Your task to perform on an android device: Do I have any events today? Image 0: 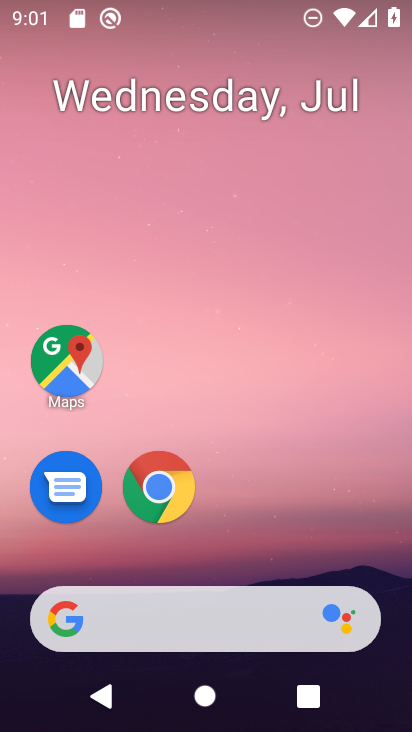
Step 0: drag from (345, 509) to (364, 103)
Your task to perform on an android device: Do I have any events today? Image 1: 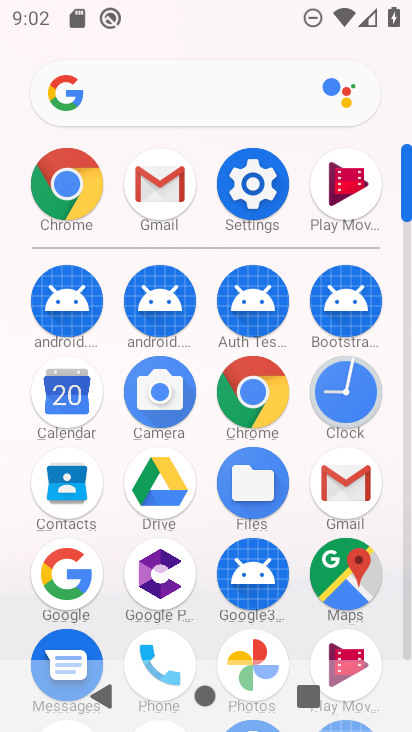
Step 1: click (81, 394)
Your task to perform on an android device: Do I have any events today? Image 2: 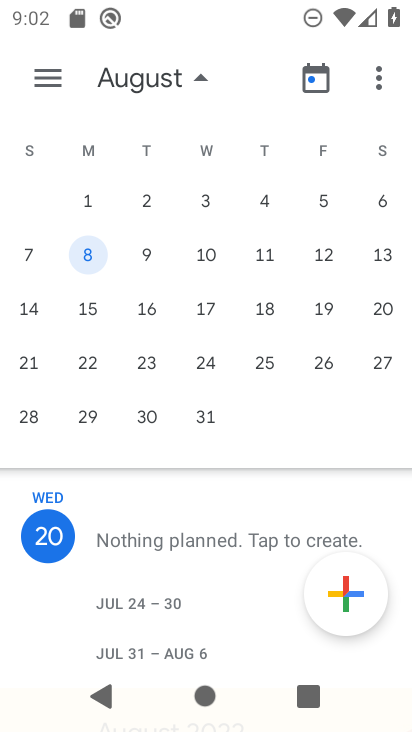
Step 2: drag from (270, 570) to (271, 275)
Your task to perform on an android device: Do I have any events today? Image 3: 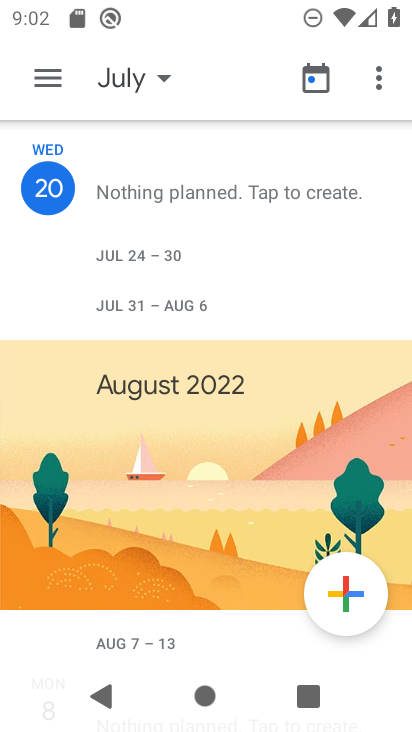
Step 3: click (167, 75)
Your task to perform on an android device: Do I have any events today? Image 4: 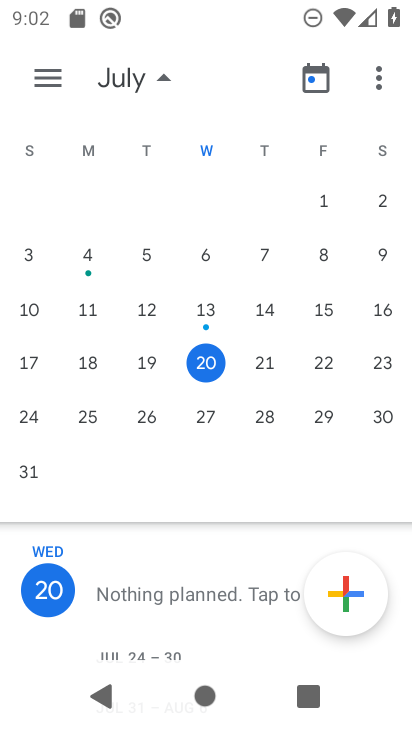
Step 4: click (259, 370)
Your task to perform on an android device: Do I have any events today? Image 5: 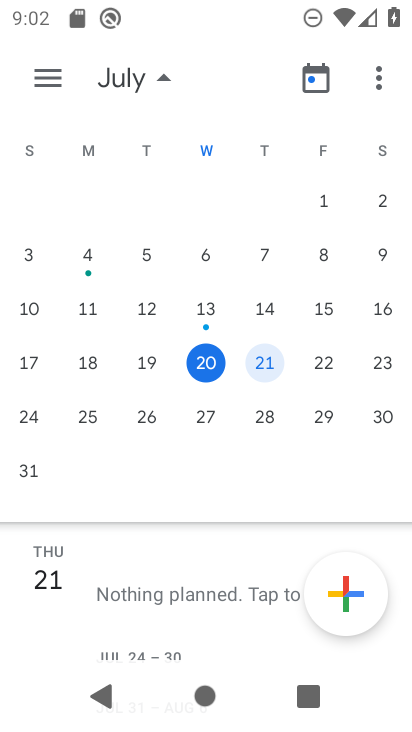
Step 5: task complete